Your task to perform on an android device: Open display settings Image 0: 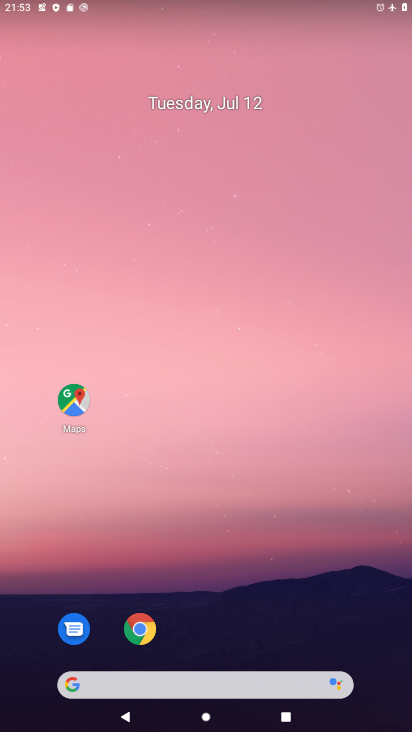
Step 0: drag from (138, 586) to (159, 234)
Your task to perform on an android device: Open display settings Image 1: 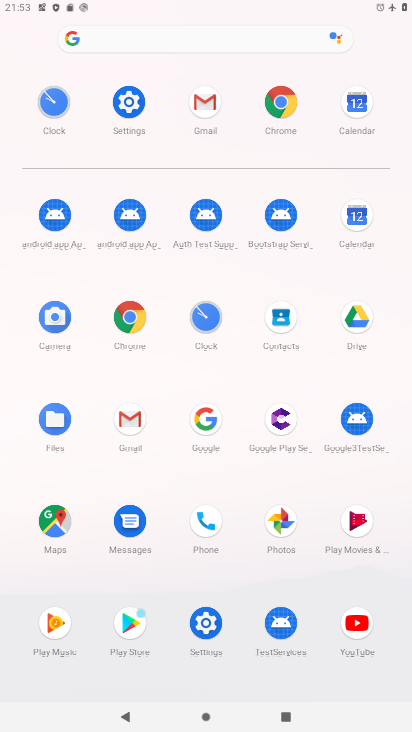
Step 1: click (121, 98)
Your task to perform on an android device: Open display settings Image 2: 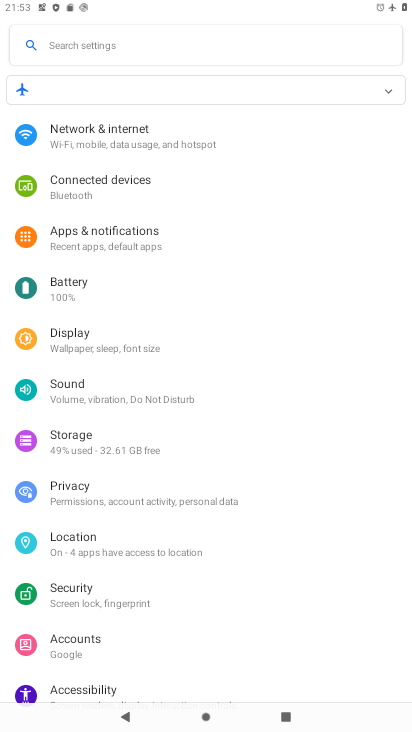
Step 2: click (109, 332)
Your task to perform on an android device: Open display settings Image 3: 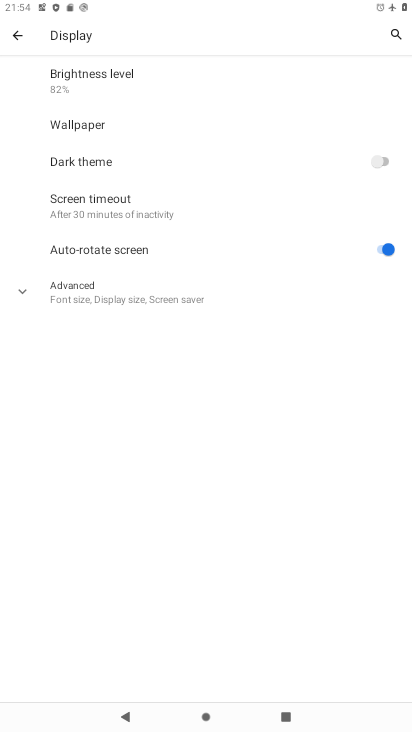
Step 3: task complete